Your task to perform on an android device: Open settings on Google Maps Image 0: 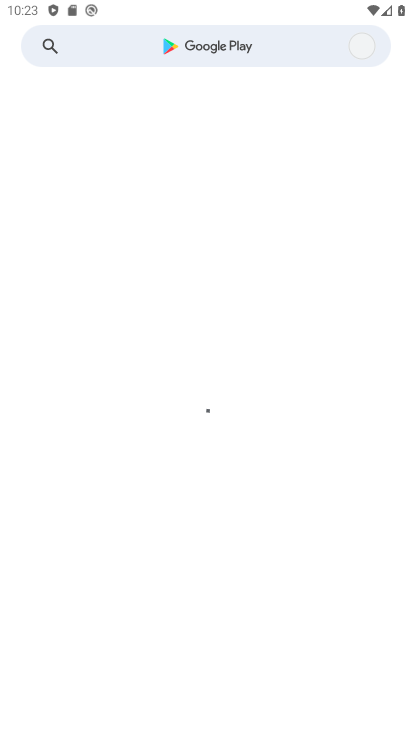
Step 0: press home button
Your task to perform on an android device: Open settings on Google Maps Image 1: 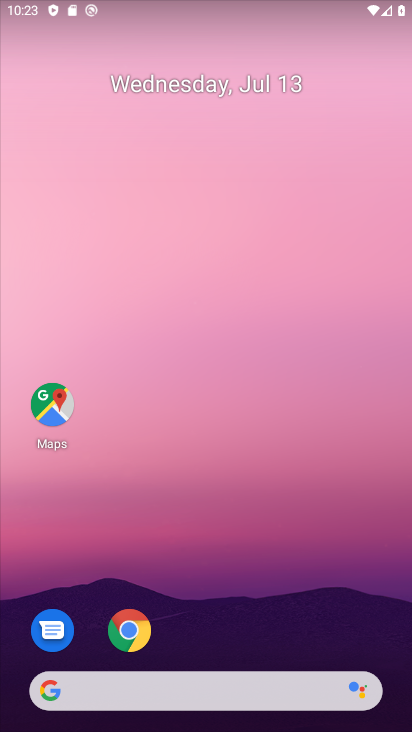
Step 1: click (53, 413)
Your task to perform on an android device: Open settings on Google Maps Image 2: 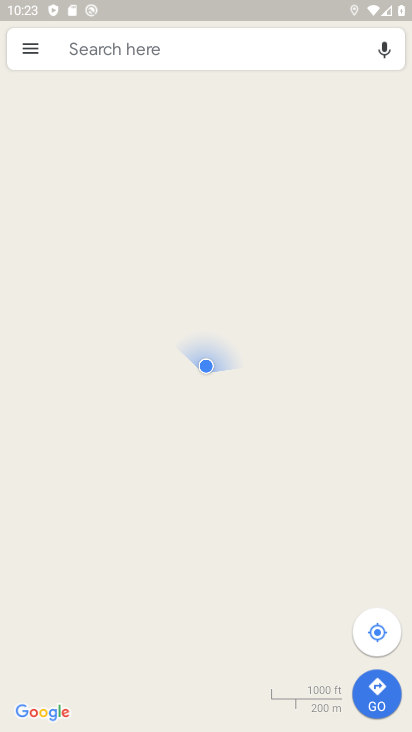
Step 2: click (28, 47)
Your task to perform on an android device: Open settings on Google Maps Image 3: 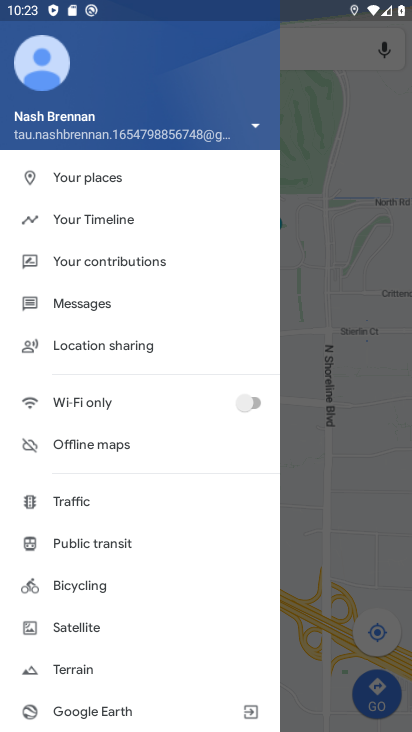
Step 3: drag from (120, 702) to (127, 357)
Your task to perform on an android device: Open settings on Google Maps Image 4: 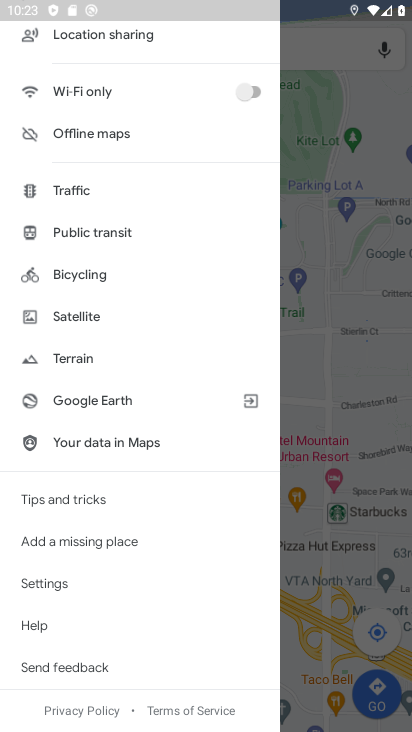
Step 4: click (76, 581)
Your task to perform on an android device: Open settings on Google Maps Image 5: 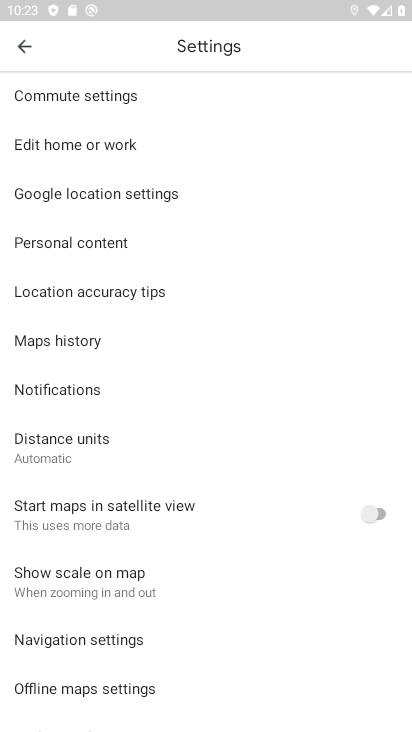
Step 5: task complete